Your task to perform on an android device: Go to wifi settings Image 0: 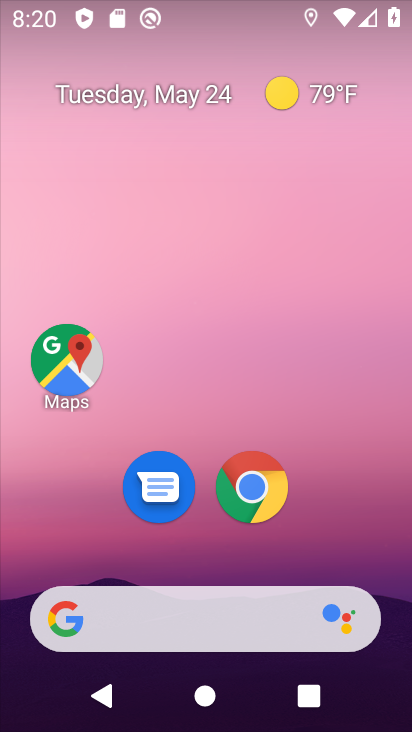
Step 0: drag from (182, 8) to (137, 323)
Your task to perform on an android device: Go to wifi settings Image 1: 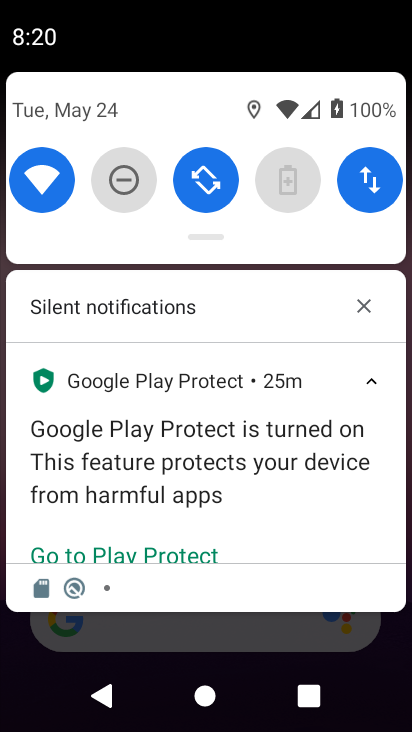
Step 1: click (37, 163)
Your task to perform on an android device: Go to wifi settings Image 2: 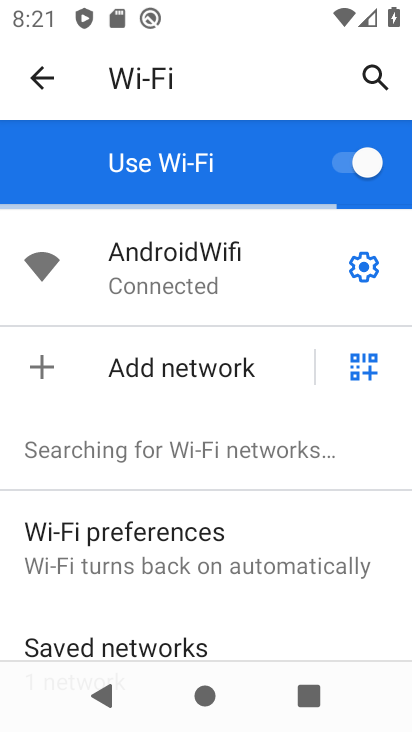
Step 2: task complete